Your task to perform on an android device: change notifications settings Image 0: 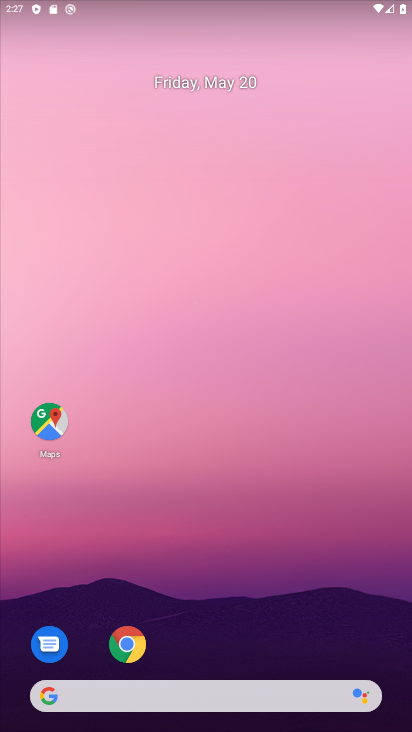
Step 0: drag from (184, 609) to (189, 39)
Your task to perform on an android device: change notifications settings Image 1: 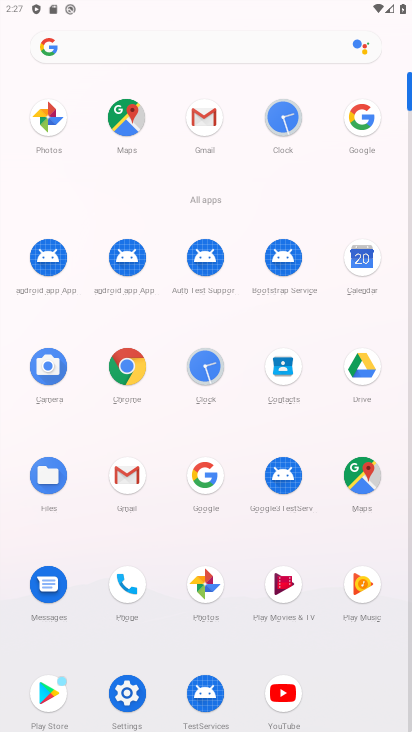
Step 1: click (122, 700)
Your task to perform on an android device: change notifications settings Image 2: 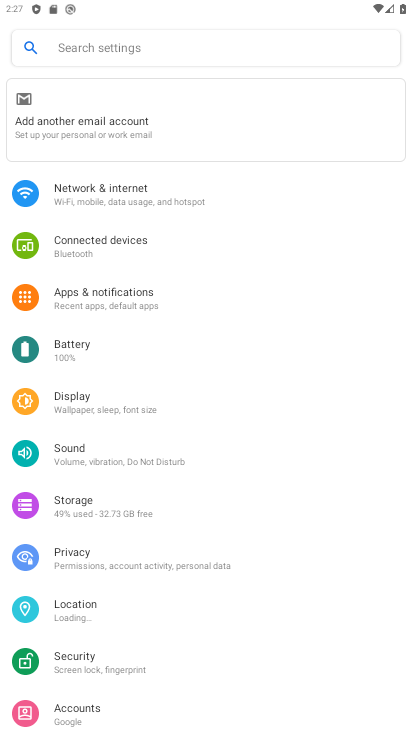
Step 2: click (155, 300)
Your task to perform on an android device: change notifications settings Image 3: 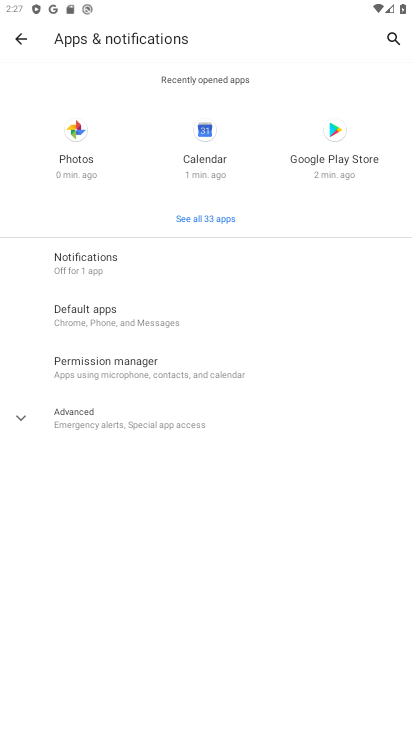
Step 3: click (118, 277)
Your task to perform on an android device: change notifications settings Image 4: 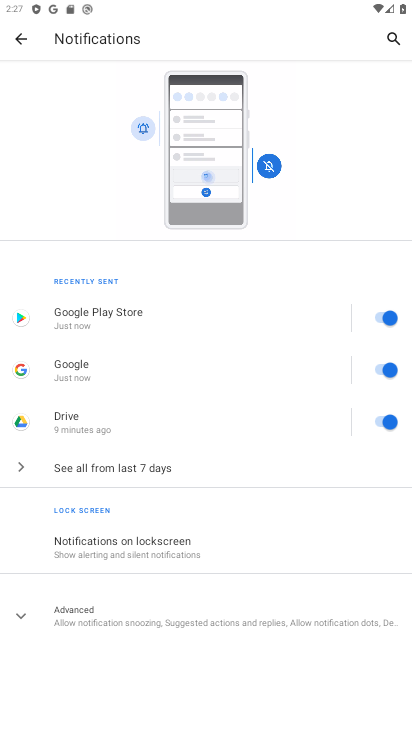
Step 4: click (388, 319)
Your task to perform on an android device: change notifications settings Image 5: 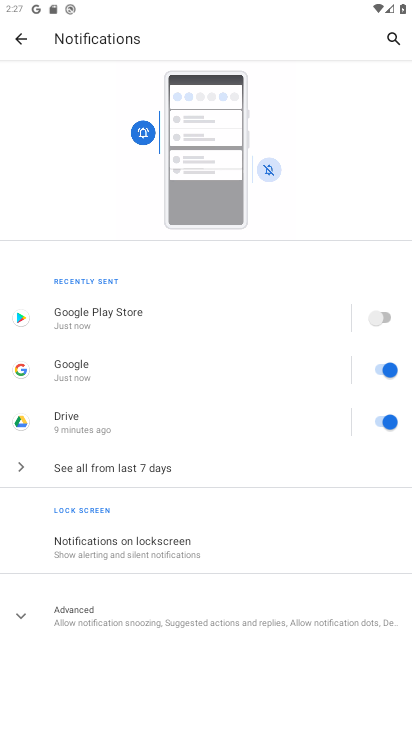
Step 5: task complete